Your task to perform on an android device: turn off priority inbox in the gmail app Image 0: 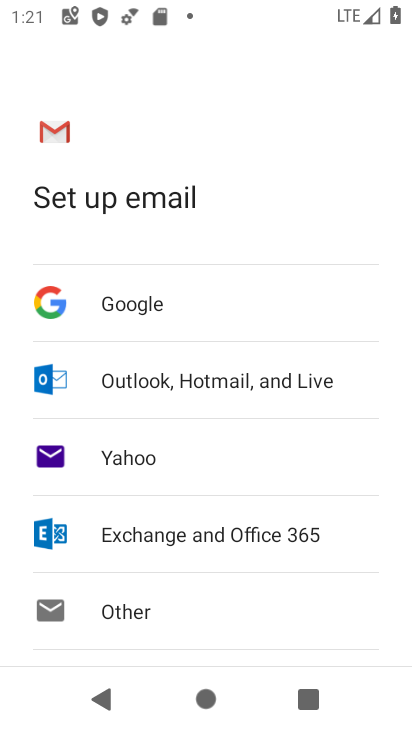
Step 0: press home button
Your task to perform on an android device: turn off priority inbox in the gmail app Image 1: 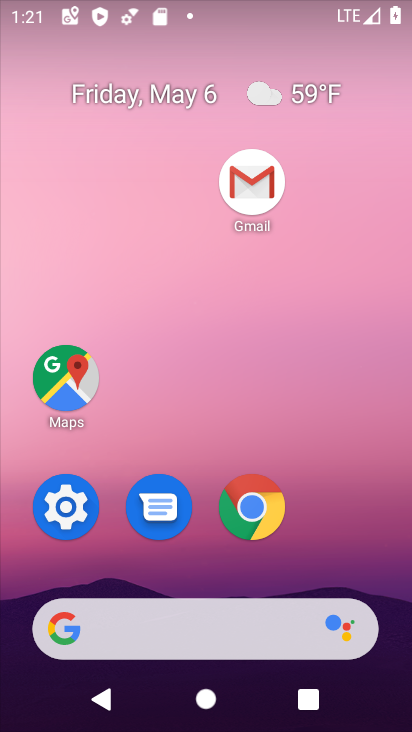
Step 1: click (242, 193)
Your task to perform on an android device: turn off priority inbox in the gmail app Image 2: 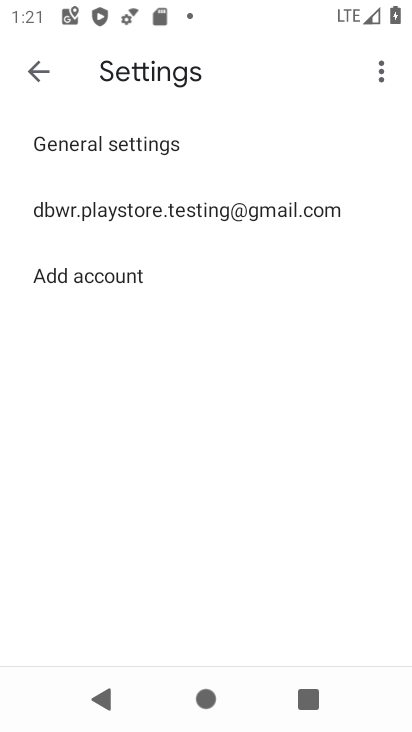
Step 2: click (40, 77)
Your task to perform on an android device: turn off priority inbox in the gmail app Image 3: 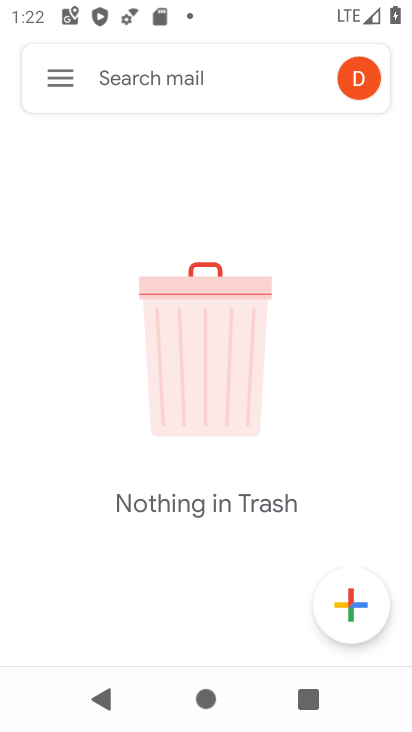
Step 3: click (53, 75)
Your task to perform on an android device: turn off priority inbox in the gmail app Image 4: 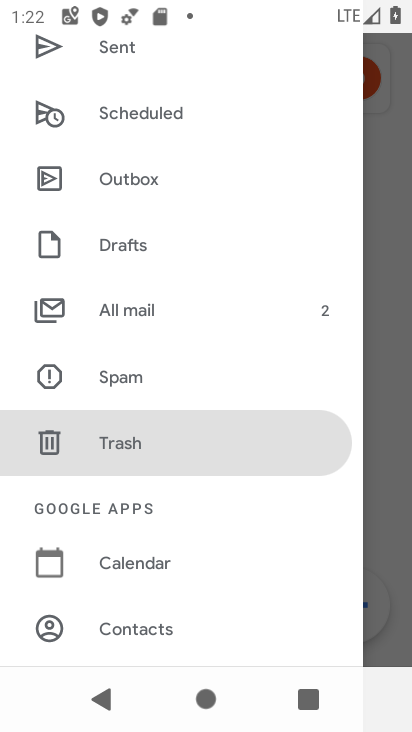
Step 4: drag from (159, 553) to (157, 295)
Your task to perform on an android device: turn off priority inbox in the gmail app Image 5: 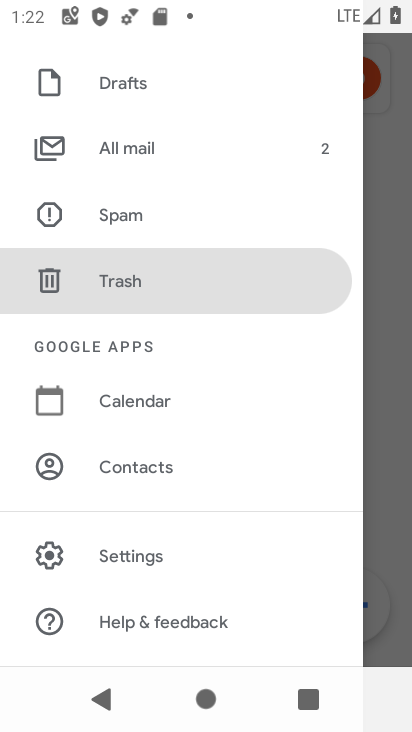
Step 5: click (129, 549)
Your task to perform on an android device: turn off priority inbox in the gmail app Image 6: 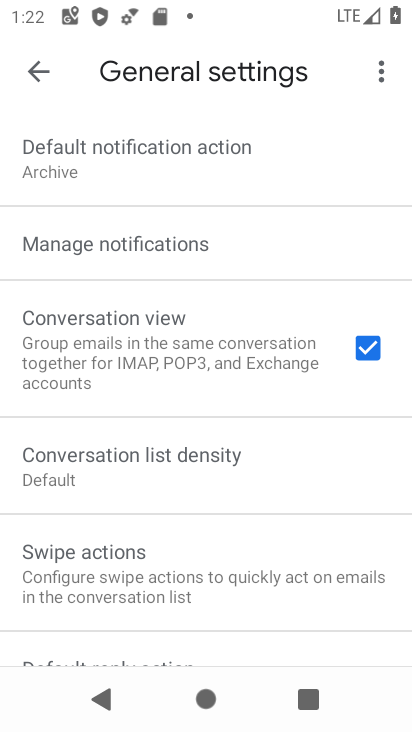
Step 6: click (34, 69)
Your task to perform on an android device: turn off priority inbox in the gmail app Image 7: 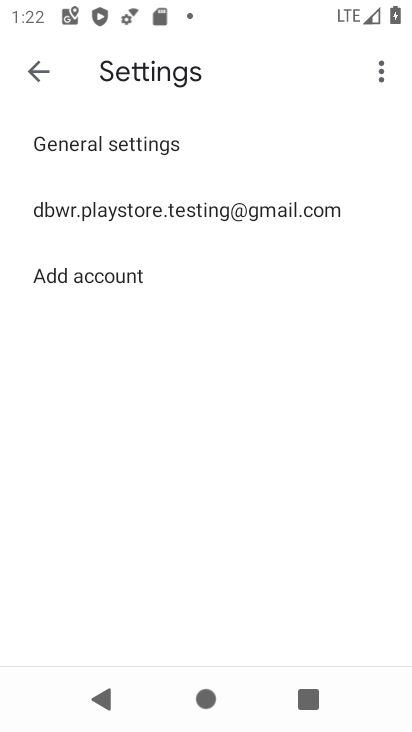
Step 7: click (87, 203)
Your task to perform on an android device: turn off priority inbox in the gmail app Image 8: 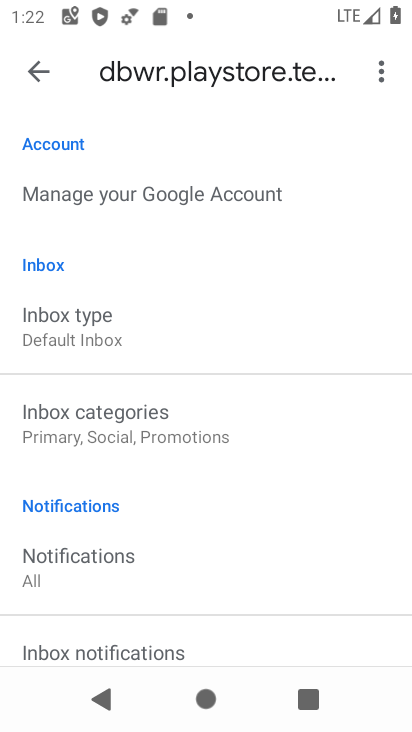
Step 8: click (76, 317)
Your task to perform on an android device: turn off priority inbox in the gmail app Image 9: 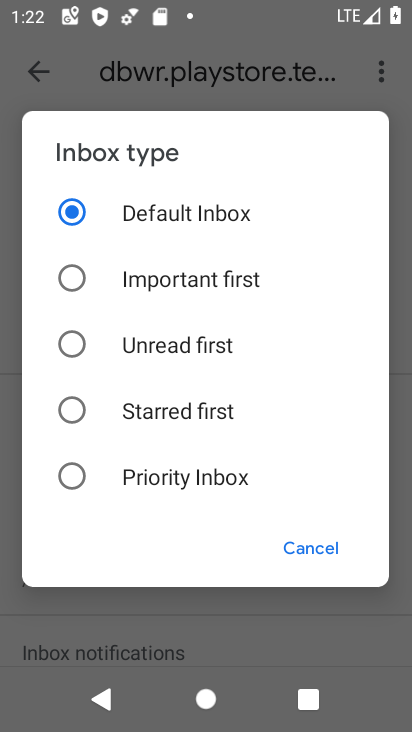
Step 9: task complete